Your task to perform on an android device: set the timer Image 0: 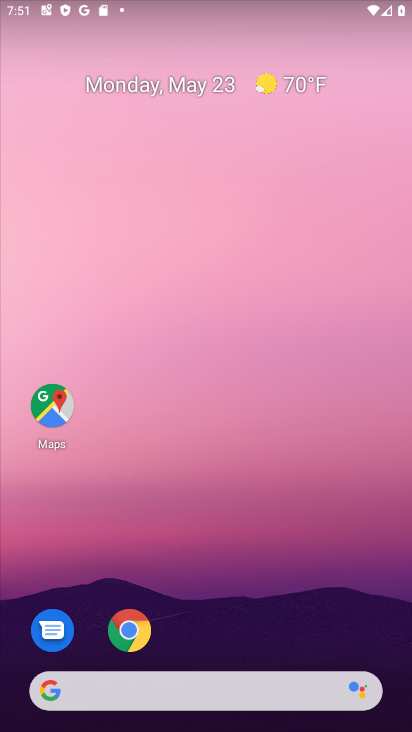
Step 0: drag from (243, 610) to (259, 156)
Your task to perform on an android device: set the timer Image 1: 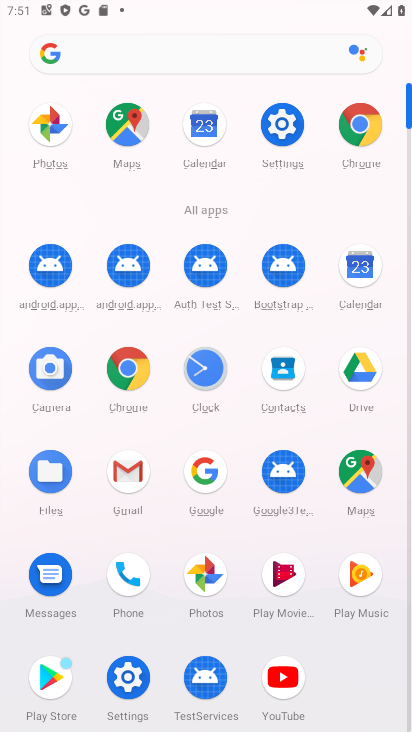
Step 1: click (190, 358)
Your task to perform on an android device: set the timer Image 2: 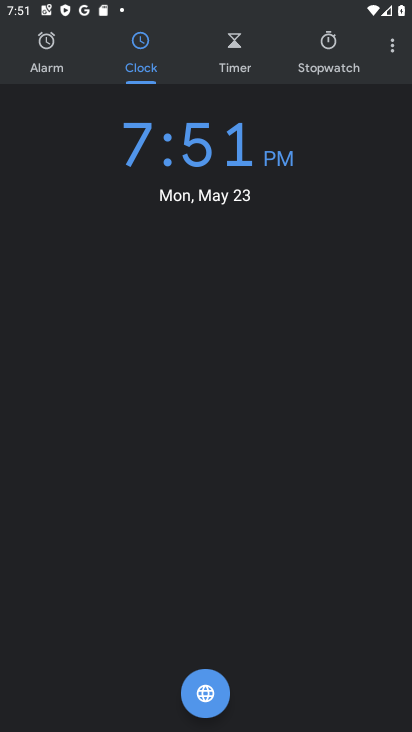
Step 2: click (220, 57)
Your task to perform on an android device: set the timer Image 3: 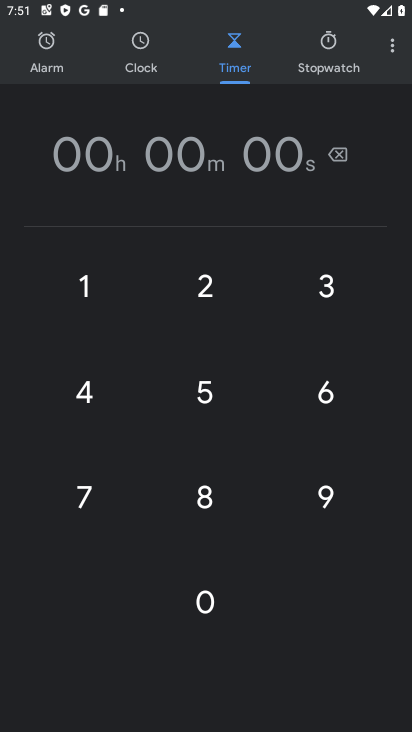
Step 3: click (233, 394)
Your task to perform on an android device: set the timer Image 4: 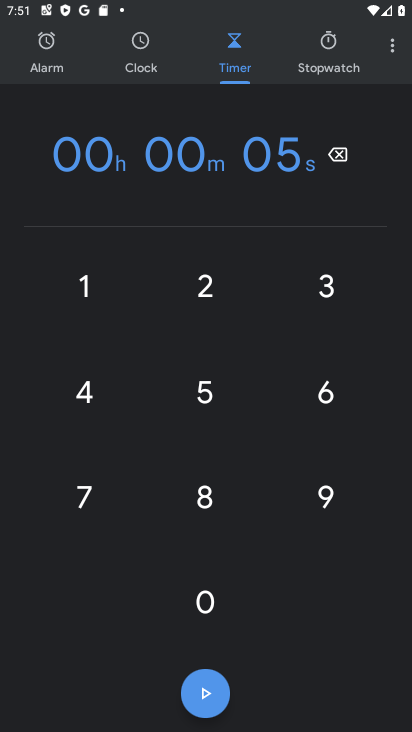
Step 4: task complete